Your task to perform on an android device: search for starred emails in the gmail app Image 0: 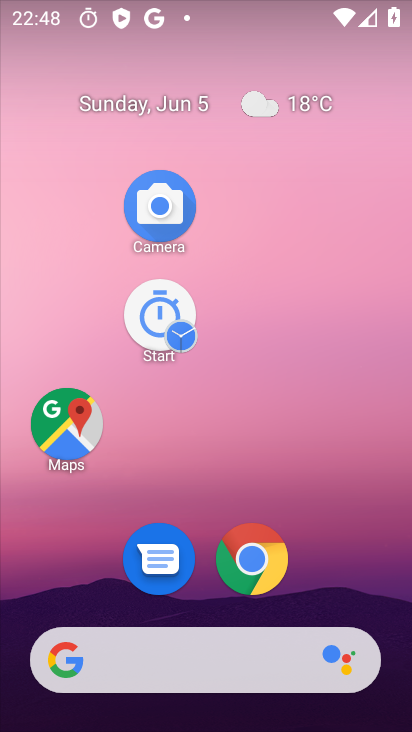
Step 0: drag from (294, 669) to (185, 80)
Your task to perform on an android device: search for starred emails in the gmail app Image 1: 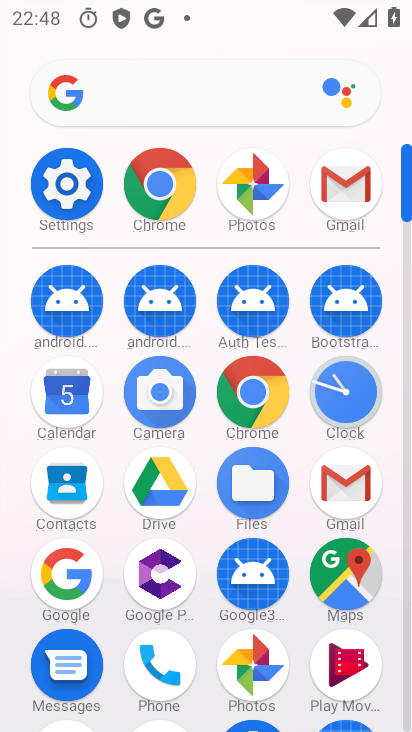
Step 1: click (346, 472)
Your task to perform on an android device: search for starred emails in the gmail app Image 2: 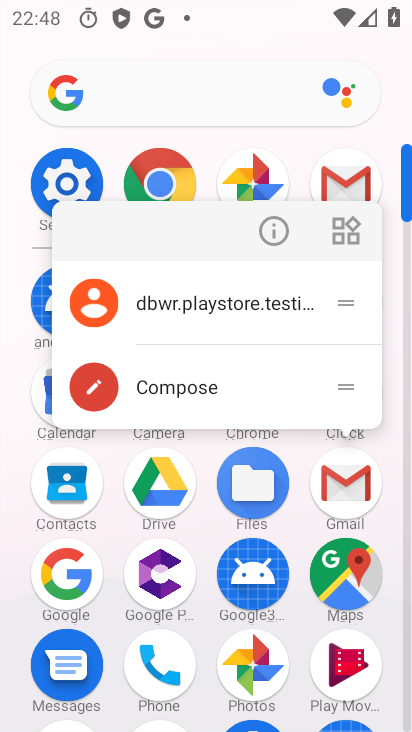
Step 2: click (346, 472)
Your task to perform on an android device: search for starred emails in the gmail app Image 3: 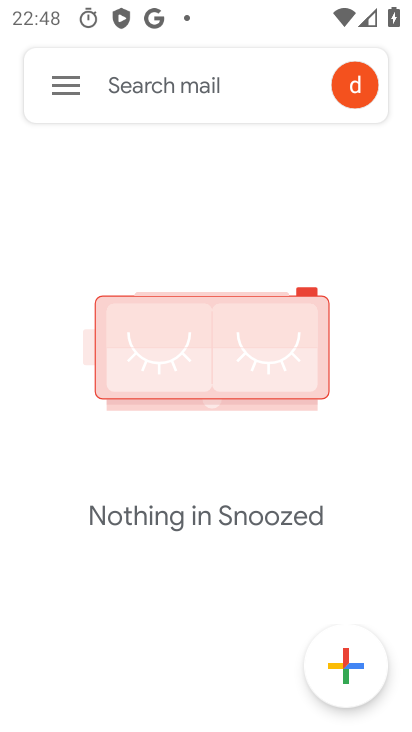
Step 3: click (74, 91)
Your task to perform on an android device: search for starred emails in the gmail app Image 4: 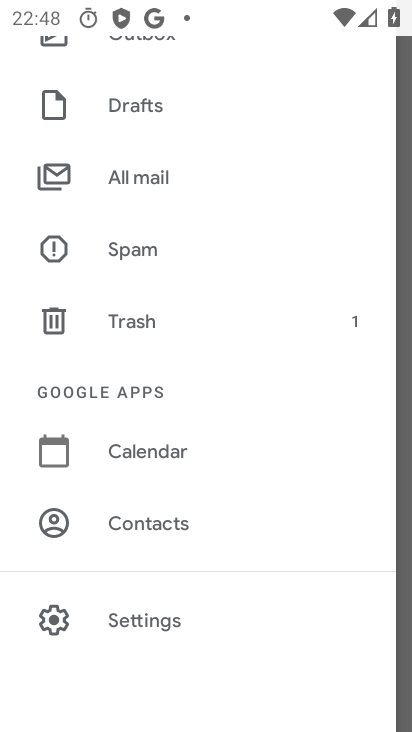
Step 4: drag from (122, 280) to (100, 521)
Your task to perform on an android device: search for starred emails in the gmail app Image 5: 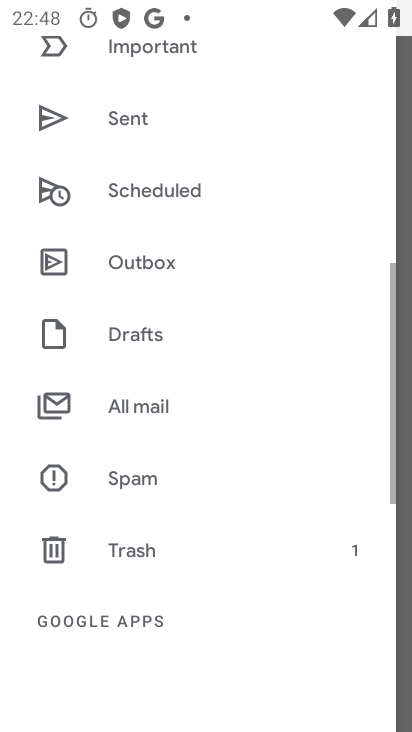
Step 5: drag from (167, 252) to (119, 524)
Your task to perform on an android device: search for starred emails in the gmail app Image 6: 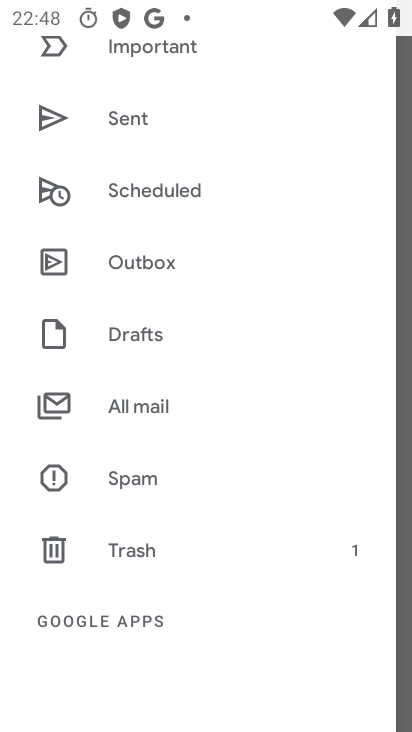
Step 6: drag from (130, 222) to (120, 517)
Your task to perform on an android device: search for starred emails in the gmail app Image 7: 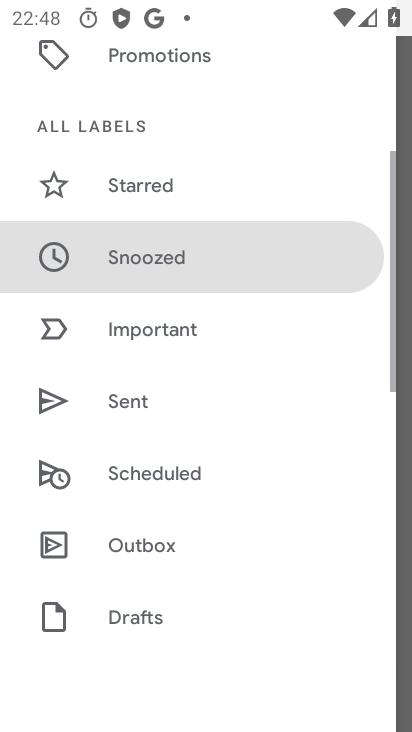
Step 7: drag from (147, 243) to (149, 613)
Your task to perform on an android device: search for starred emails in the gmail app Image 8: 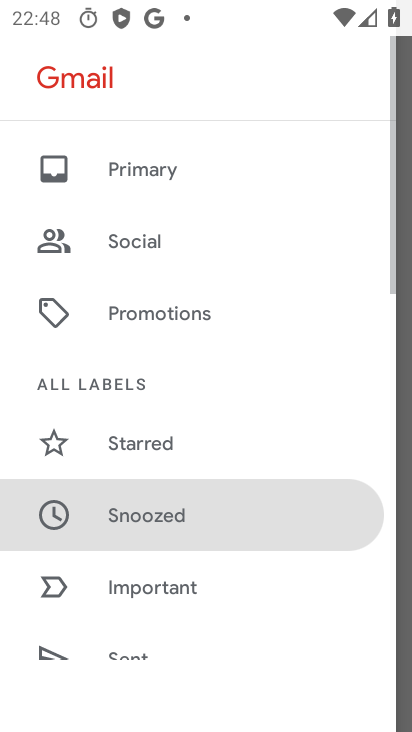
Step 8: click (132, 445)
Your task to perform on an android device: search for starred emails in the gmail app Image 9: 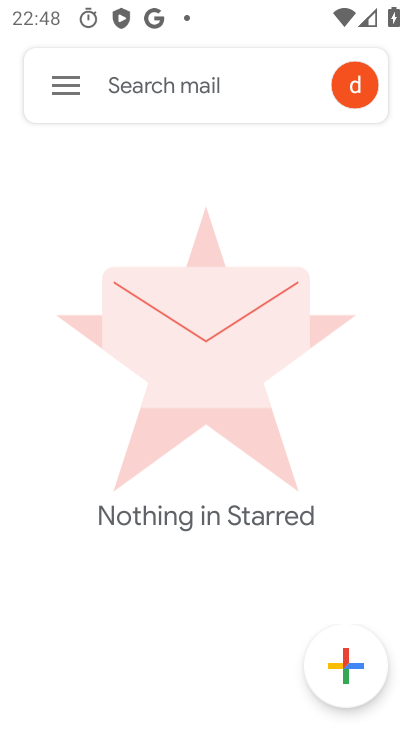
Step 9: task complete